Your task to perform on an android device: refresh tabs in the chrome app Image 0: 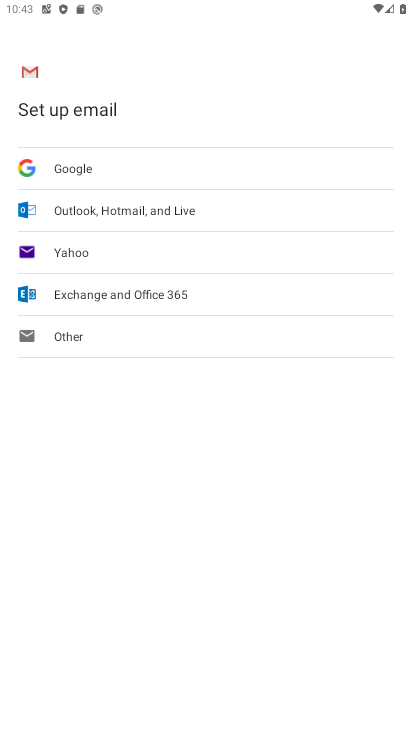
Step 0: press home button
Your task to perform on an android device: refresh tabs in the chrome app Image 1: 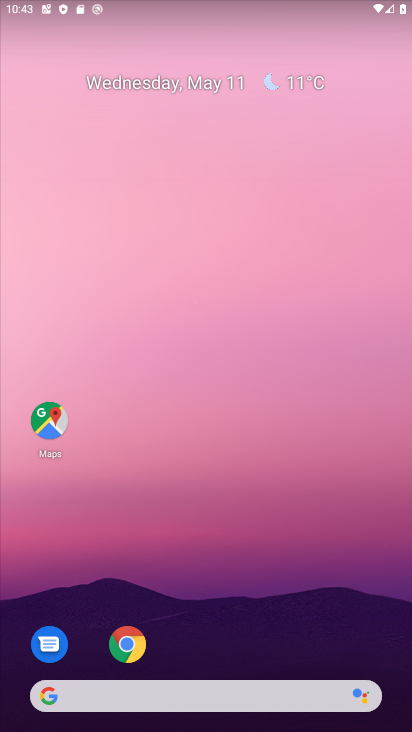
Step 1: click (137, 660)
Your task to perform on an android device: refresh tabs in the chrome app Image 2: 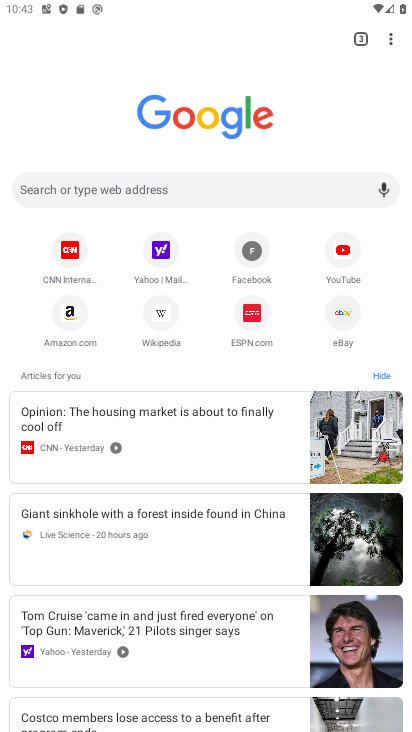
Step 2: click (392, 42)
Your task to perform on an android device: refresh tabs in the chrome app Image 3: 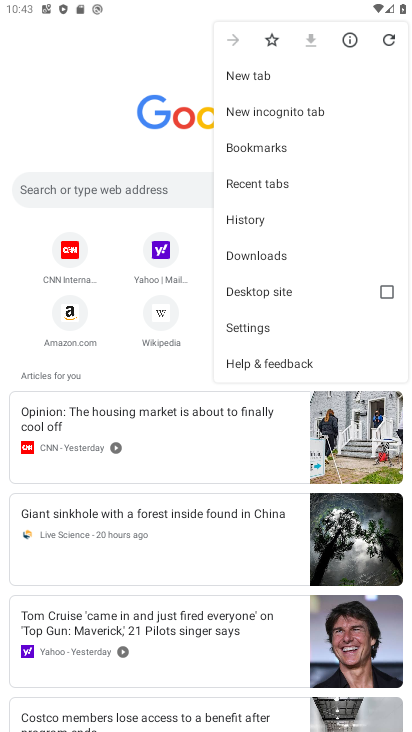
Step 3: click (385, 34)
Your task to perform on an android device: refresh tabs in the chrome app Image 4: 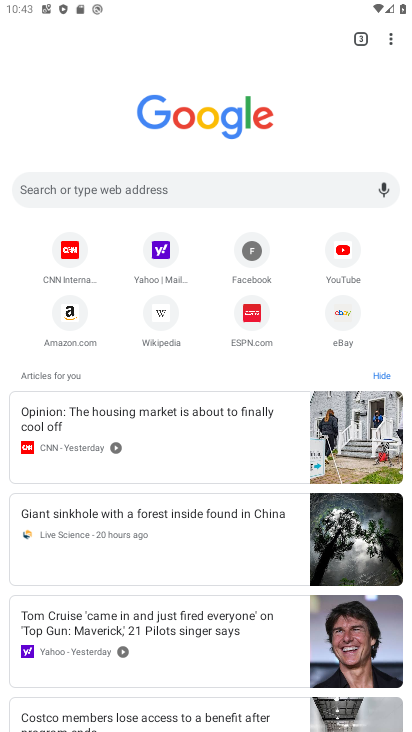
Step 4: task complete